Your task to perform on an android device: change alarm snooze length Image 0: 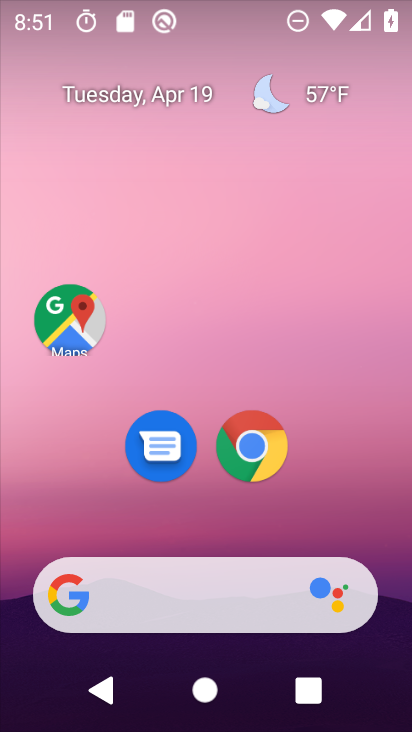
Step 0: drag from (334, 470) to (301, 182)
Your task to perform on an android device: change alarm snooze length Image 1: 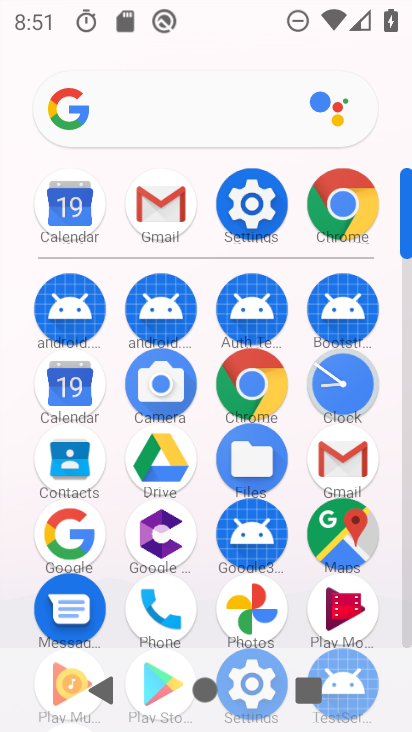
Step 1: click (342, 396)
Your task to perform on an android device: change alarm snooze length Image 2: 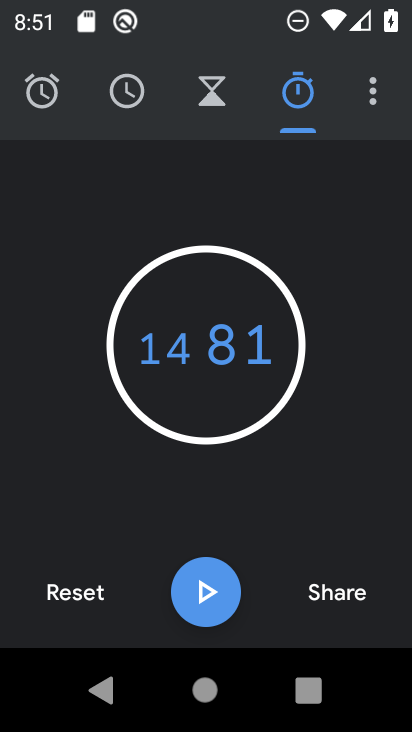
Step 2: click (373, 96)
Your task to perform on an android device: change alarm snooze length Image 3: 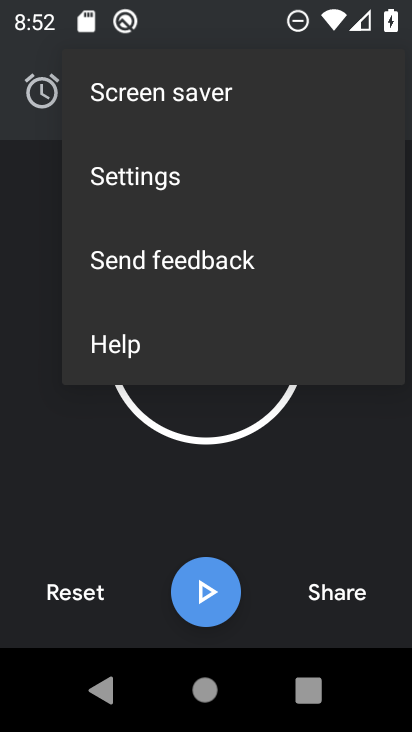
Step 3: click (141, 176)
Your task to perform on an android device: change alarm snooze length Image 4: 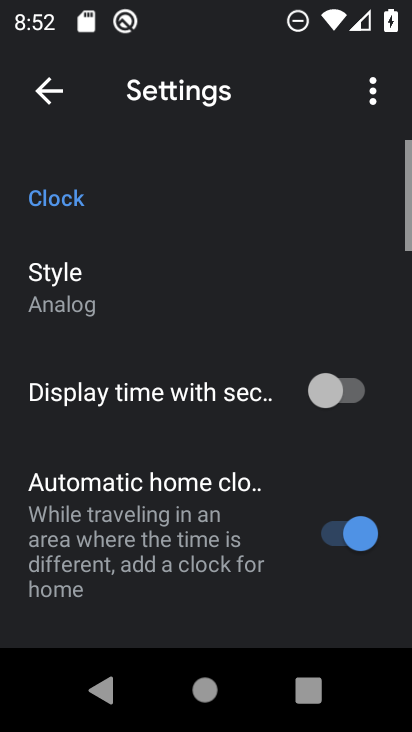
Step 4: drag from (129, 587) to (113, 218)
Your task to perform on an android device: change alarm snooze length Image 5: 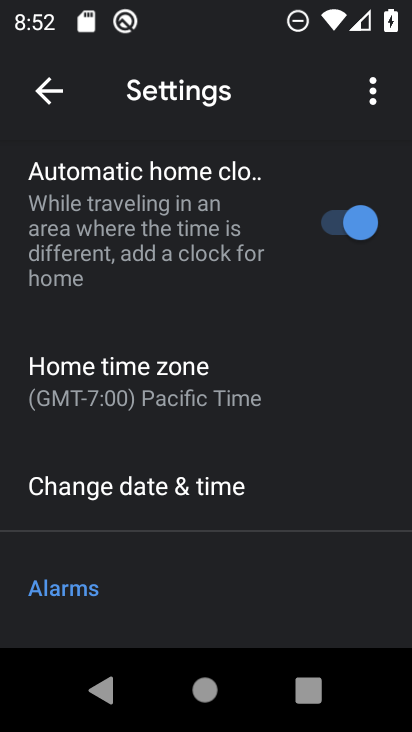
Step 5: drag from (167, 625) to (170, 185)
Your task to perform on an android device: change alarm snooze length Image 6: 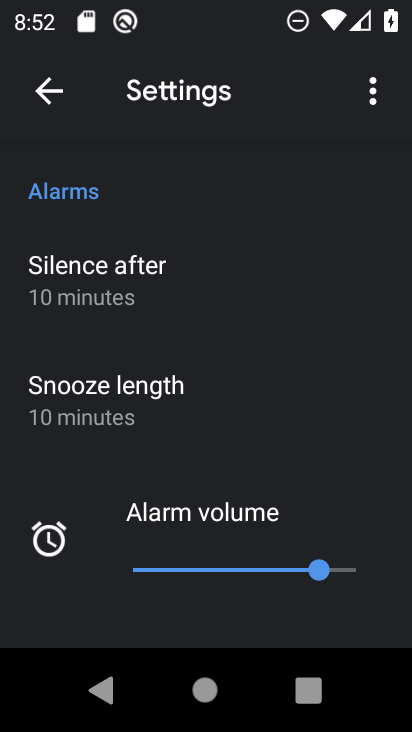
Step 6: click (113, 411)
Your task to perform on an android device: change alarm snooze length Image 7: 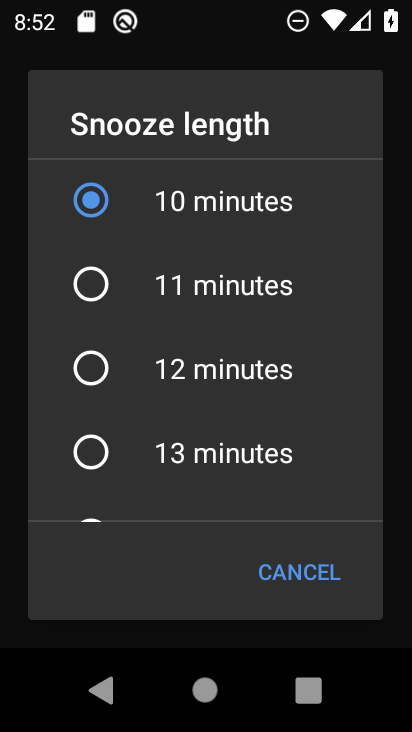
Step 7: click (96, 457)
Your task to perform on an android device: change alarm snooze length Image 8: 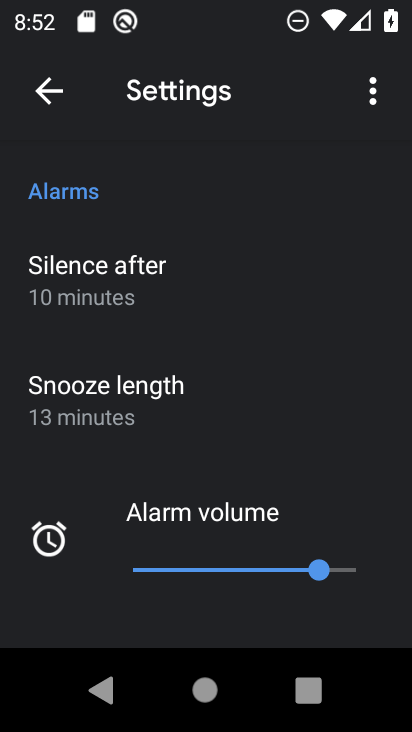
Step 8: task complete